Your task to perform on an android device: Open Google Maps and go to "Timeline" Image 0: 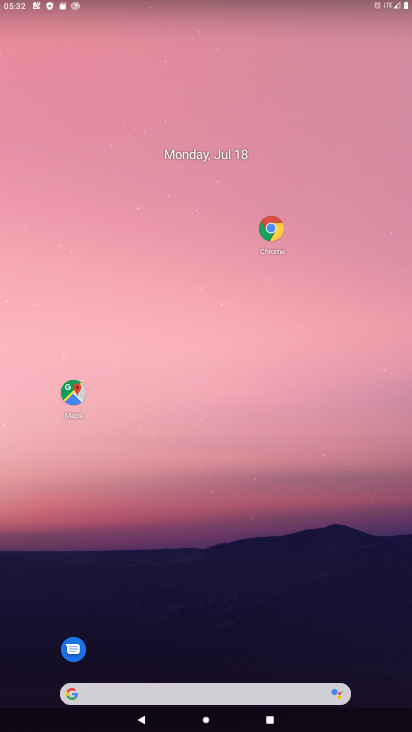
Step 0: click (76, 384)
Your task to perform on an android device: Open Google Maps and go to "Timeline" Image 1: 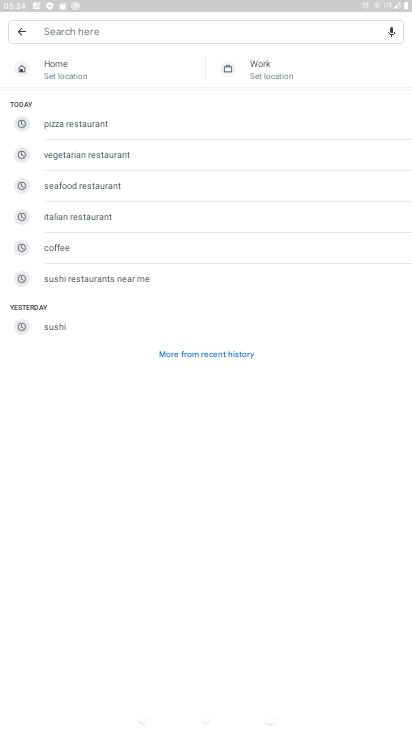
Step 1: click (39, 30)
Your task to perform on an android device: Open Google Maps and go to "Timeline" Image 2: 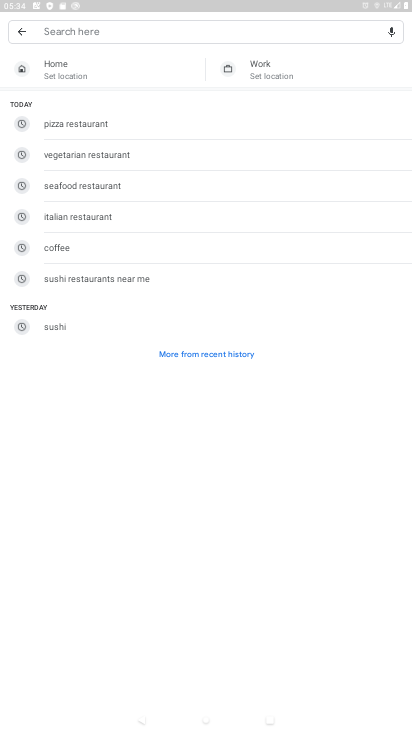
Step 2: click (28, 31)
Your task to perform on an android device: Open Google Maps and go to "Timeline" Image 3: 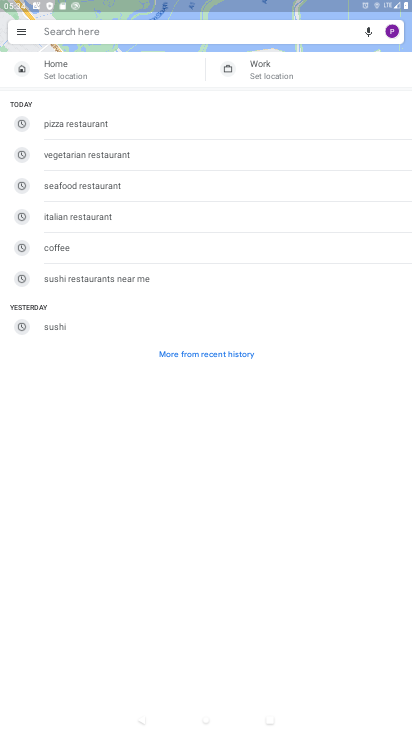
Step 3: click (28, 31)
Your task to perform on an android device: Open Google Maps and go to "Timeline" Image 4: 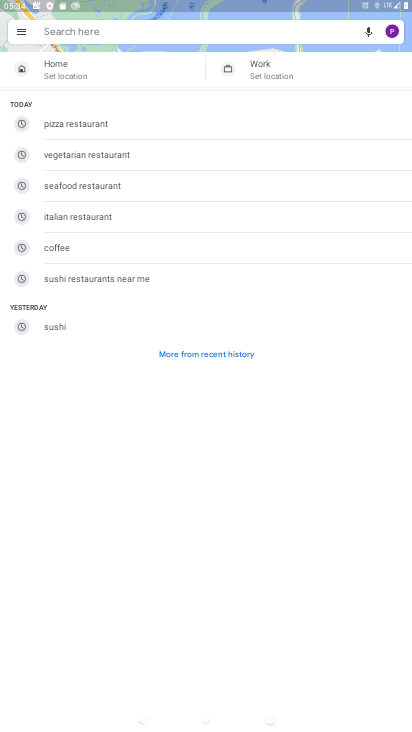
Step 4: click (28, 31)
Your task to perform on an android device: Open Google Maps and go to "Timeline" Image 5: 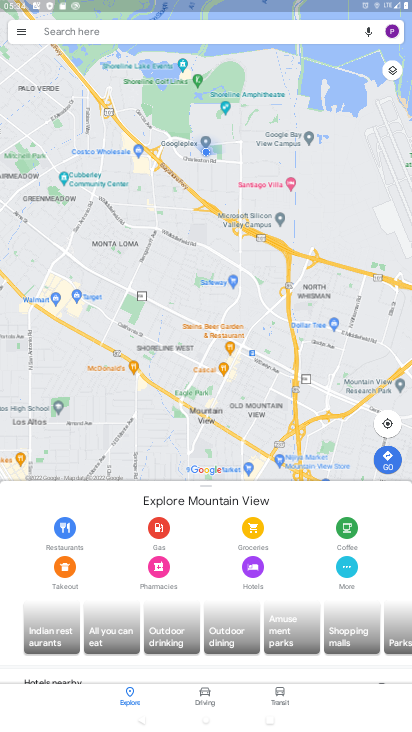
Step 5: click (28, 31)
Your task to perform on an android device: Open Google Maps and go to "Timeline" Image 6: 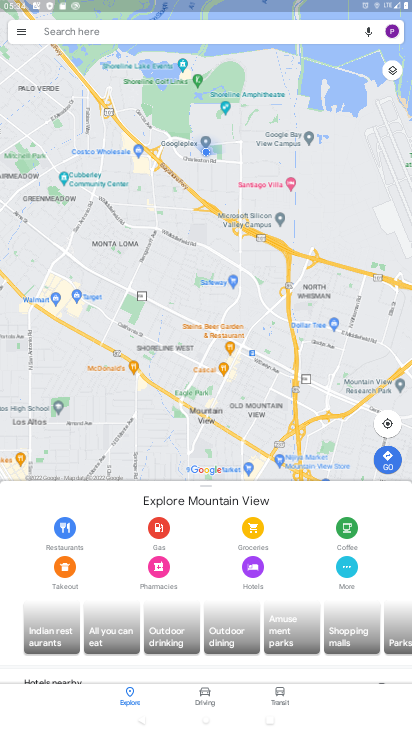
Step 6: click (28, 31)
Your task to perform on an android device: Open Google Maps and go to "Timeline" Image 7: 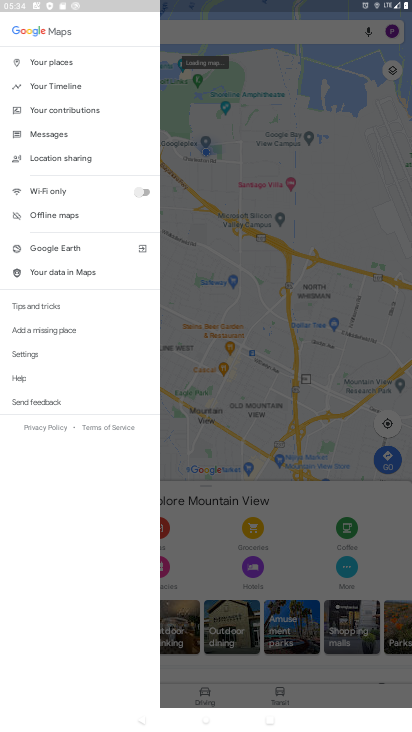
Step 7: click (76, 82)
Your task to perform on an android device: Open Google Maps and go to "Timeline" Image 8: 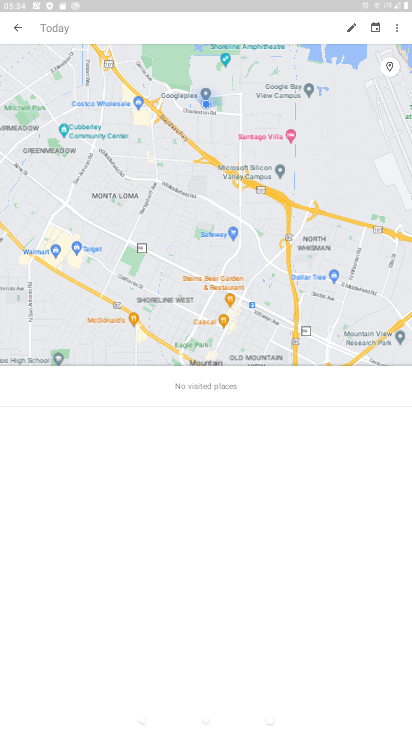
Step 8: task complete